Your task to perform on an android device: Search for a small bookcase on Ikea.com Image 0: 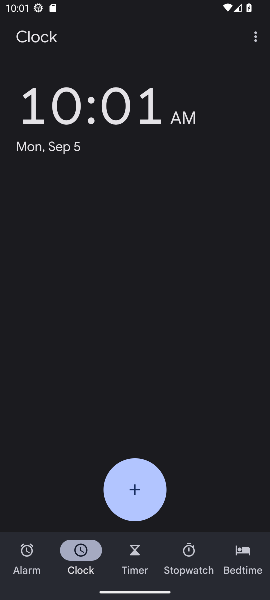
Step 0: press home button
Your task to perform on an android device: Search for a small bookcase on Ikea.com Image 1: 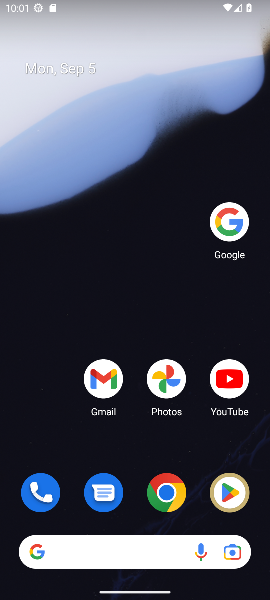
Step 1: click (218, 221)
Your task to perform on an android device: Search for a small bookcase on Ikea.com Image 2: 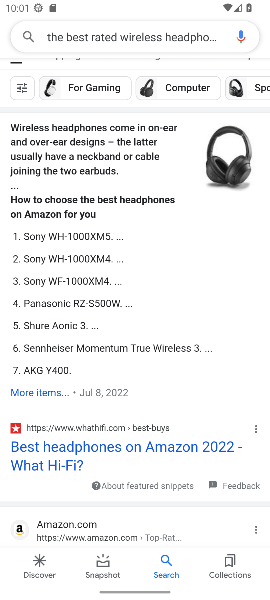
Step 2: click (173, 27)
Your task to perform on an android device: Search for a small bookcase on Ikea.com Image 3: 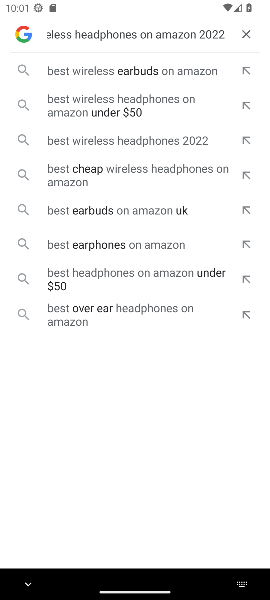
Step 3: click (236, 39)
Your task to perform on an android device: Search for a small bookcase on Ikea.com Image 4: 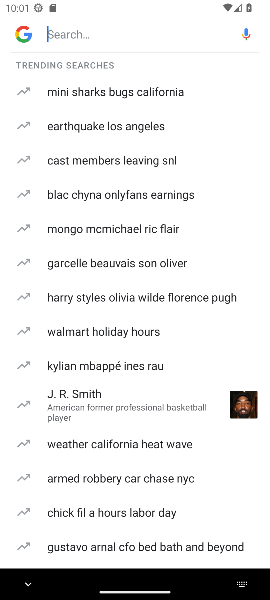
Step 4: click (88, 36)
Your task to perform on an android device: Search for a small bookcase on Ikea.com Image 5: 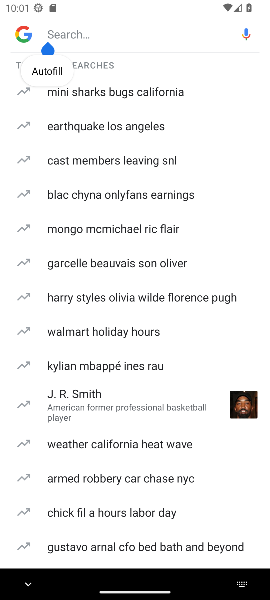
Step 5: type " a small bookcase on Ikea.com "
Your task to perform on an android device: Search for a small bookcase on Ikea.com Image 6: 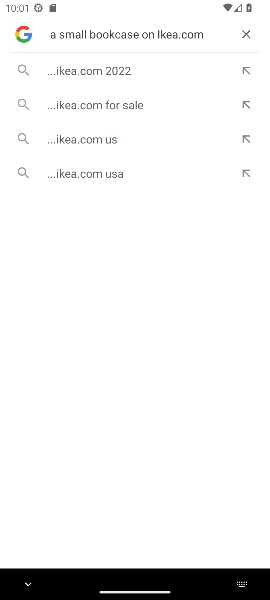
Step 6: click (89, 129)
Your task to perform on an android device: Search for a small bookcase on Ikea.com Image 7: 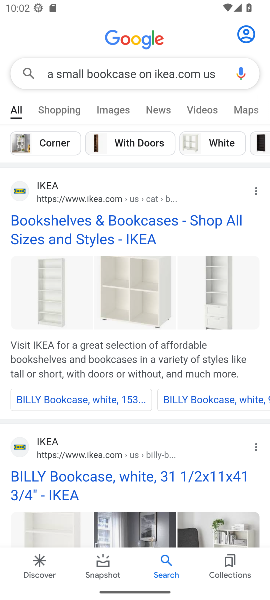
Step 7: task complete